Your task to perform on an android device: toggle priority inbox in the gmail app Image 0: 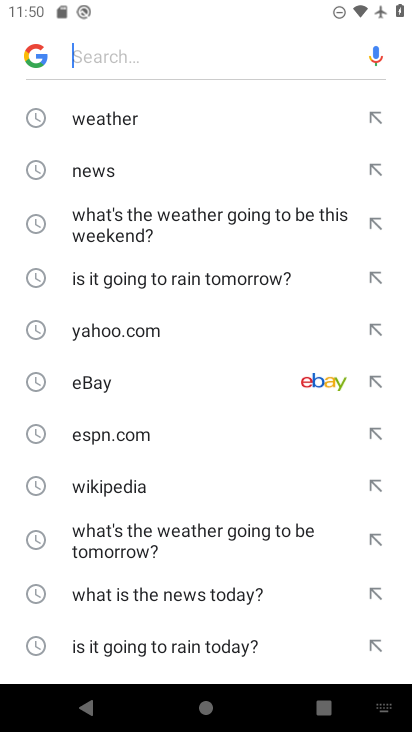
Step 0: press home button
Your task to perform on an android device: toggle priority inbox in the gmail app Image 1: 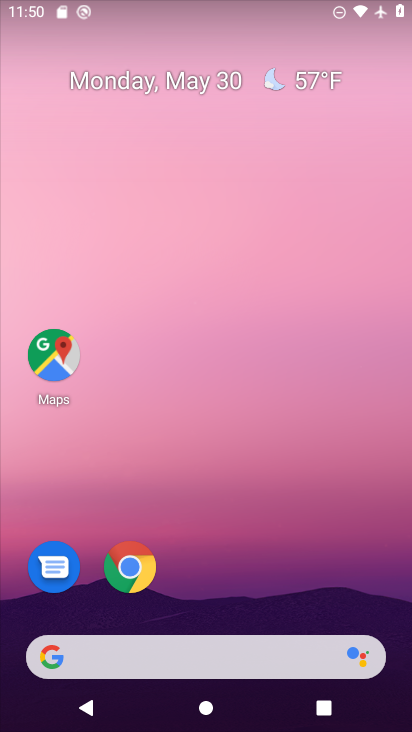
Step 1: drag from (252, 596) to (239, 180)
Your task to perform on an android device: toggle priority inbox in the gmail app Image 2: 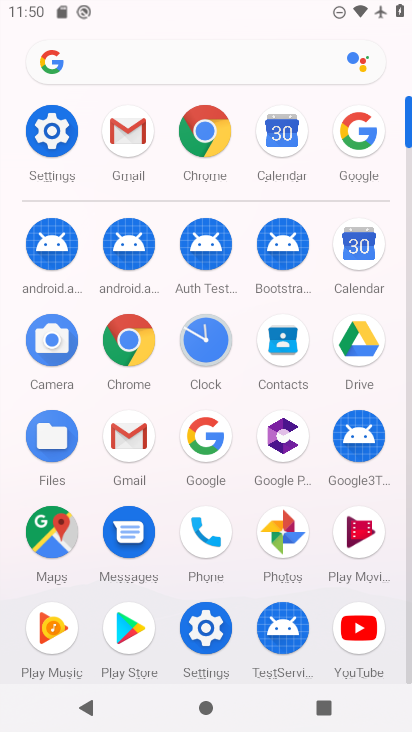
Step 2: click (132, 144)
Your task to perform on an android device: toggle priority inbox in the gmail app Image 3: 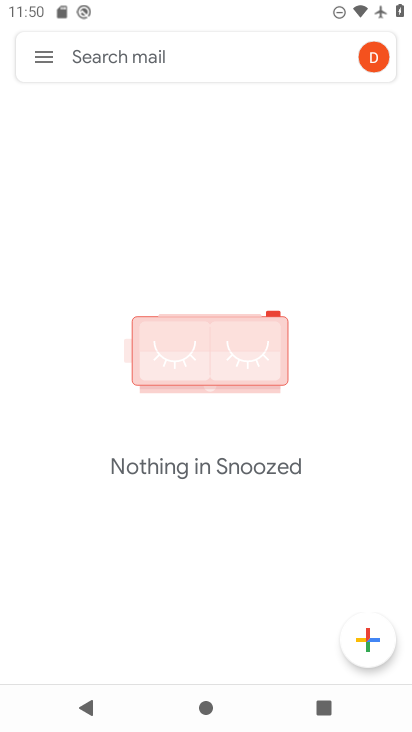
Step 3: click (37, 63)
Your task to perform on an android device: toggle priority inbox in the gmail app Image 4: 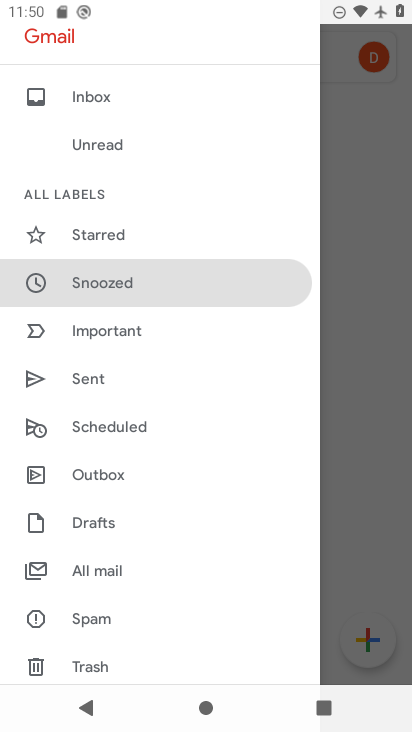
Step 4: drag from (140, 639) to (140, 289)
Your task to perform on an android device: toggle priority inbox in the gmail app Image 5: 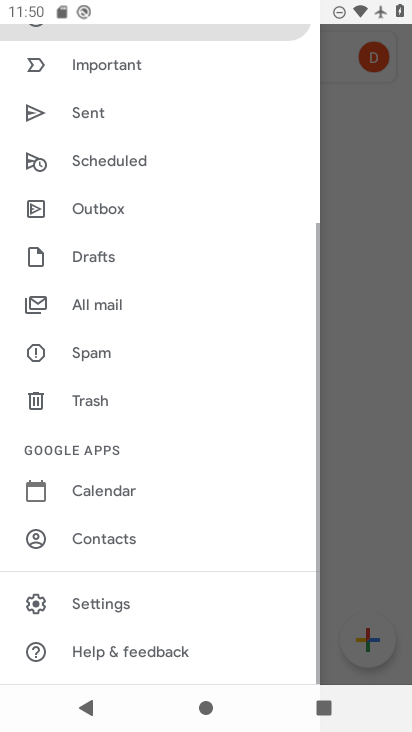
Step 5: click (116, 592)
Your task to perform on an android device: toggle priority inbox in the gmail app Image 6: 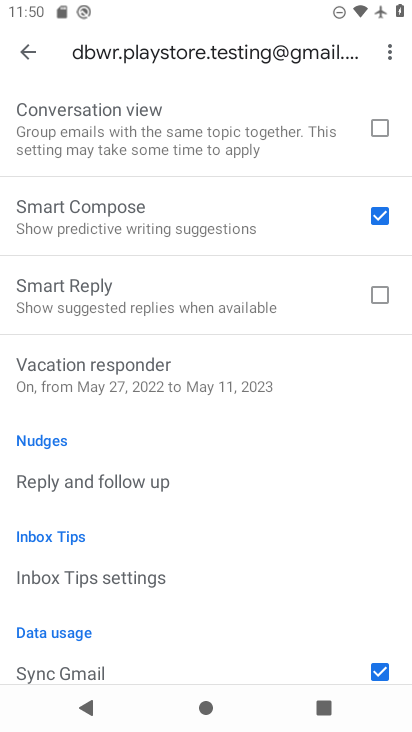
Step 6: drag from (144, 548) to (194, 238)
Your task to perform on an android device: toggle priority inbox in the gmail app Image 7: 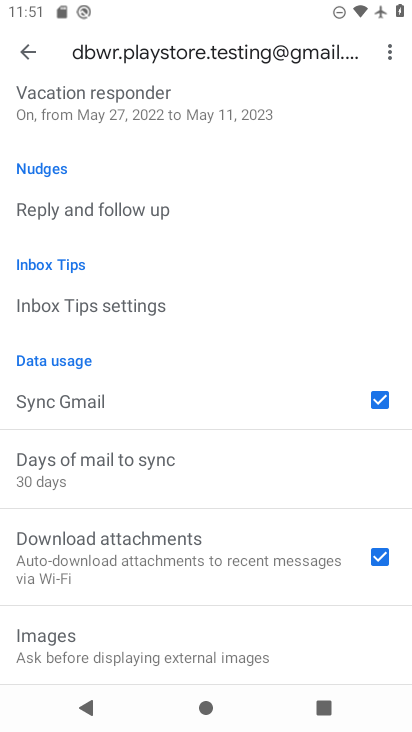
Step 7: drag from (151, 245) to (152, 600)
Your task to perform on an android device: toggle priority inbox in the gmail app Image 8: 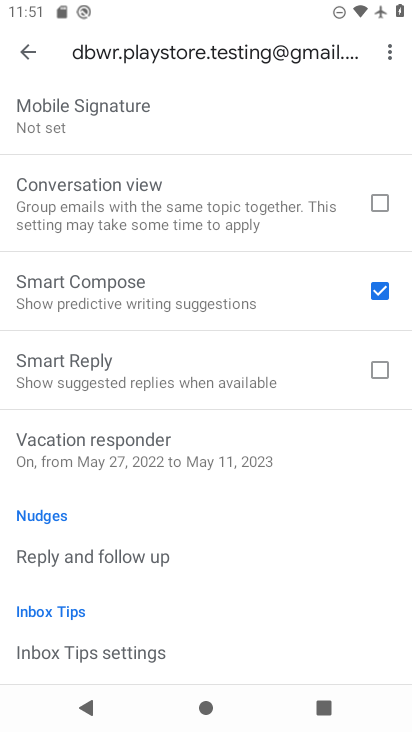
Step 8: drag from (136, 197) to (134, 530)
Your task to perform on an android device: toggle priority inbox in the gmail app Image 9: 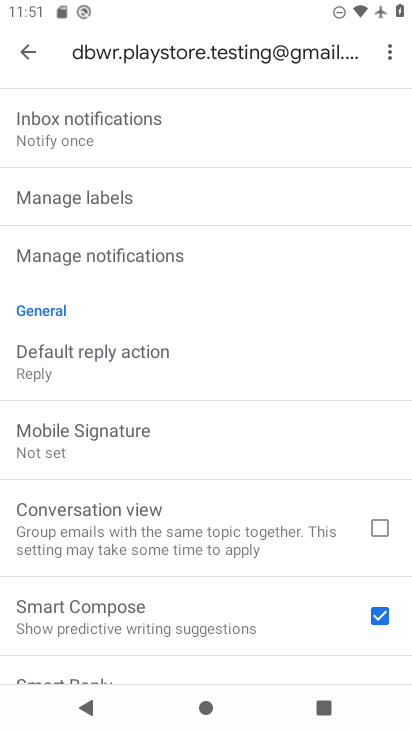
Step 9: drag from (145, 244) to (145, 467)
Your task to perform on an android device: toggle priority inbox in the gmail app Image 10: 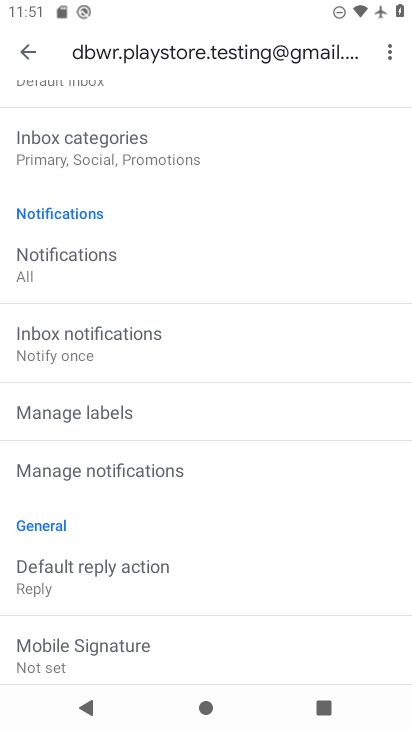
Step 10: drag from (127, 248) to (133, 340)
Your task to perform on an android device: toggle priority inbox in the gmail app Image 11: 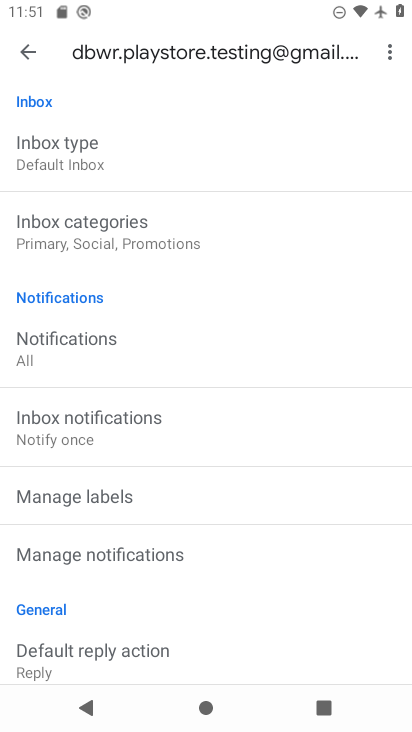
Step 11: click (92, 160)
Your task to perform on an android device: toggle priority inbox in the gmail app Image 12: 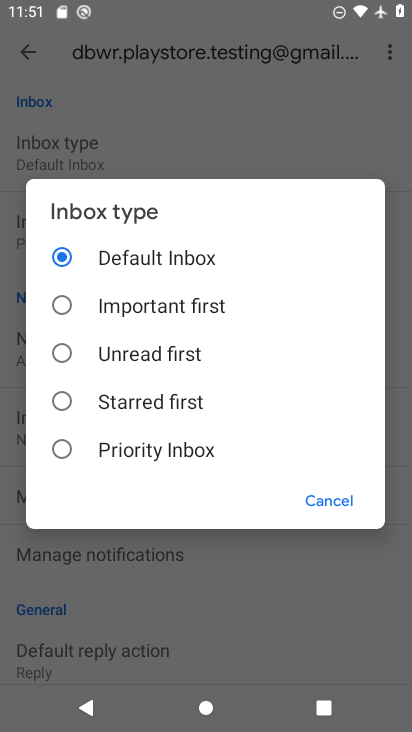
Step 12: click (110, 441)
Your task to perform on an android device: toggle priority inbox in the gmail app Image 13: 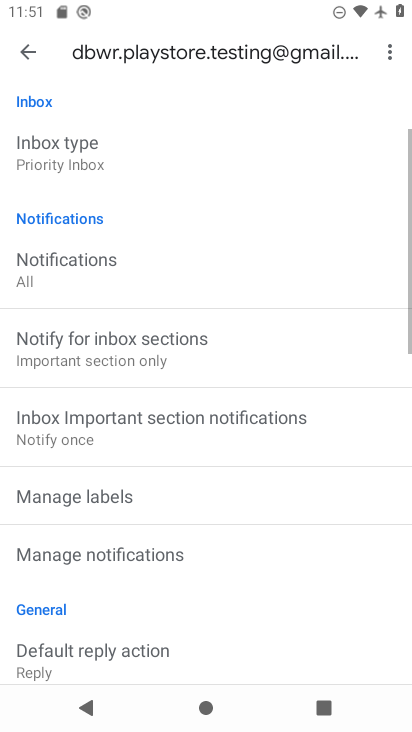
Step 13: task complete